Your task to perform on an android device: Open Youtube and go to the subscriptions tab Image 0: 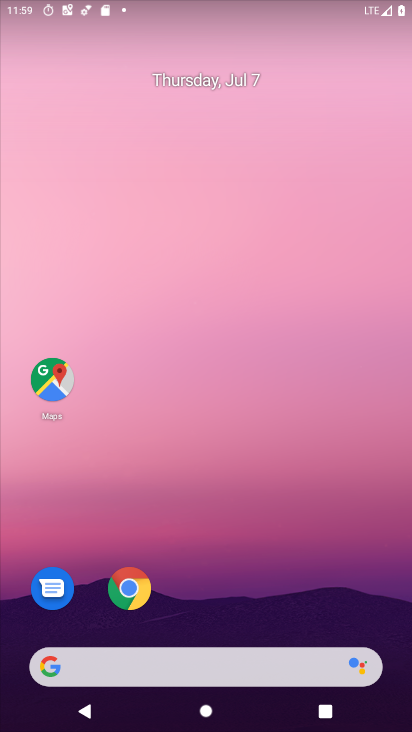
Step 0: drag from (207, 654) to (217, 122)
Your task to perform on an android device: Open Youtube and go to the subscriptions tab Image 1: 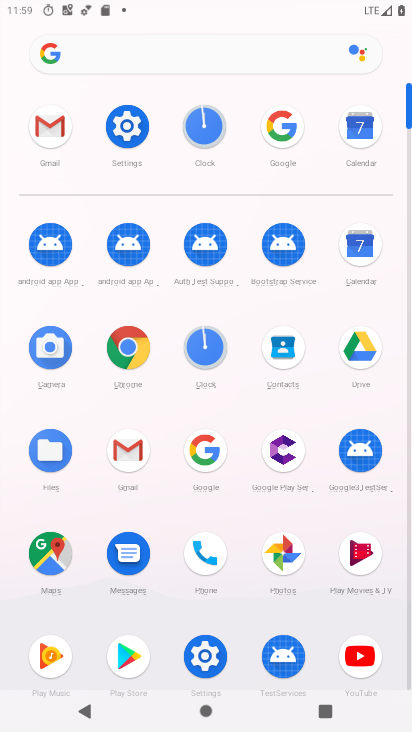
Step 1: click (356, 653)
Your task to perform on an android device: Open Youtube and go to the subscriptions tab Image 2: 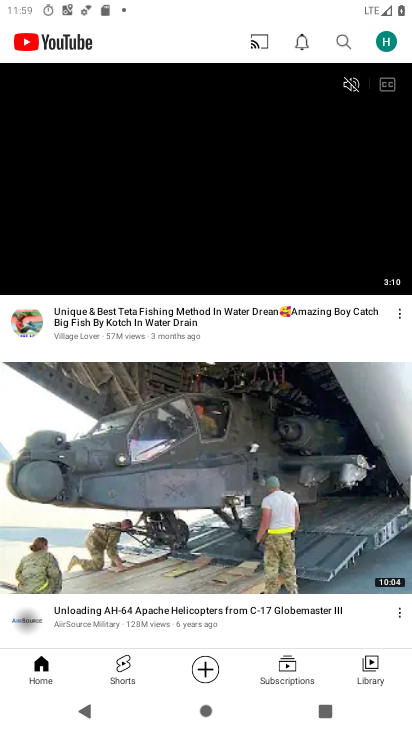
Step 2: click (289, 669)
Your task to perform on an android device: Open Youtube and go to the subscriptions tab Image 3: 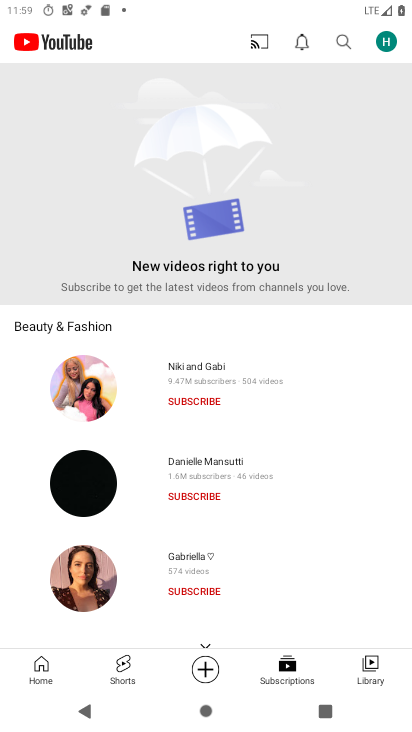
Step 3: task complete